Your task to perform on an android device: Open the calendar app, open the side menu, and click the "Day" option Image 0: 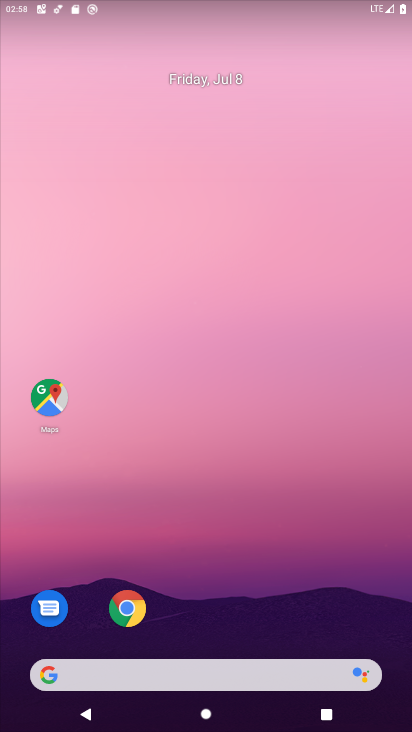
Step 0: drag from (259, 611) to (199, 303)
Your task to perform on an android device: Open the calendar app, open the side menu, and click the "Day" option Image 1: 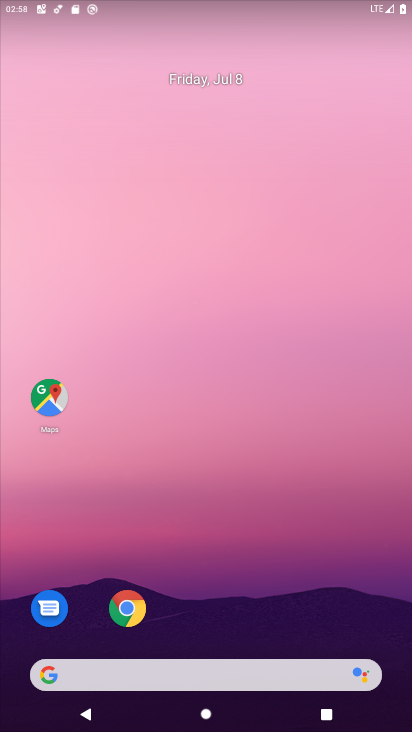
Step 1: drag from (211, 605) to (169, 270)
Your task to perform on an android device: Open the calendar app, open the side menu, and click the "Day" option Image 2: 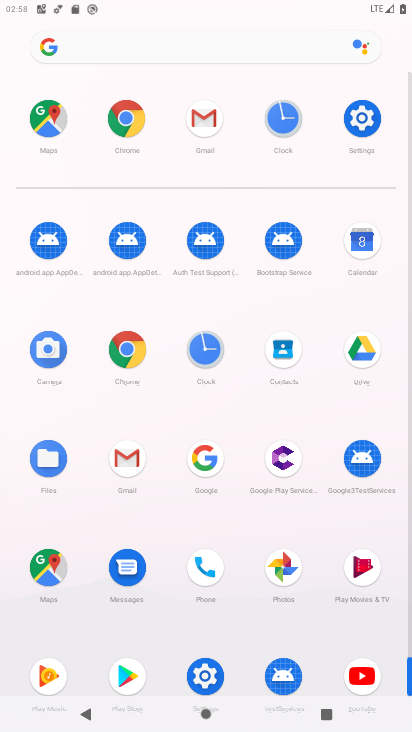
Step 2: click (357, 237)
Your task to perform on an android device: Open the calendar app, open the side menu, and click the "Day" option Image 3: 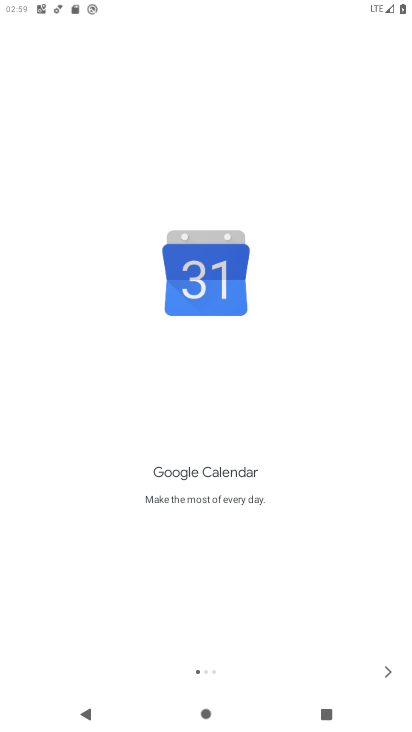
Step 3: click (388, 669)
Your task to perform on an android device: Open the calendar app, open the side menu, and click the "Day" option Image 4: 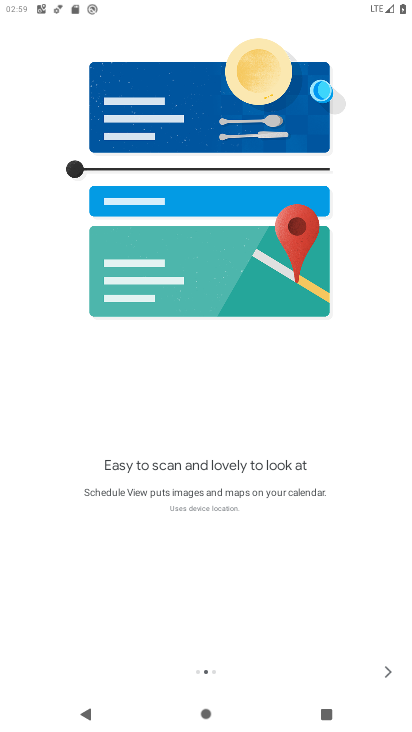
Step 4: click (388, 669)
Your task to perform on an android device: Open the calendar app, open the side menu, and click the "Day" option Image 5: 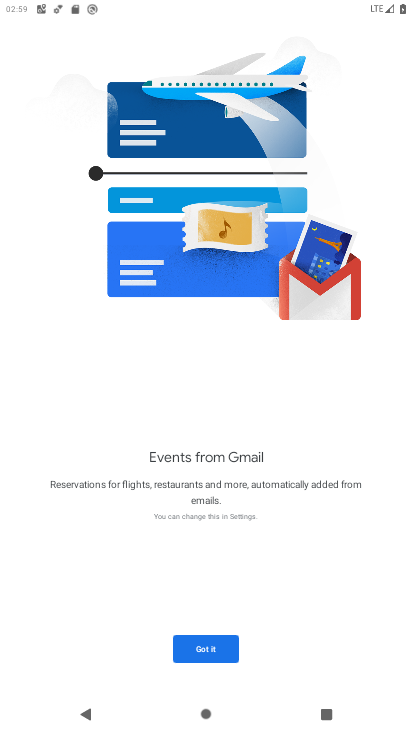
Step 5: click (216, 647)
Your task to perform on an android device: Open the calendar app, open the side menu, and click the "Day" option Image 6: 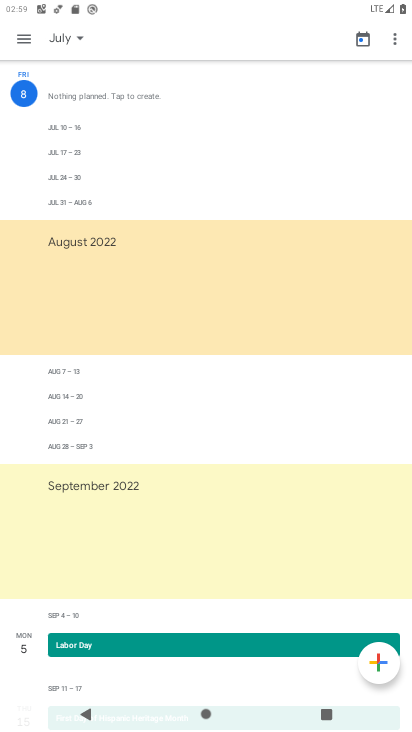
Step 6: click (20, 40)
Your task to perform on an android device: Open the calendar app, open the side menu, and click the "Day" option Image 7: 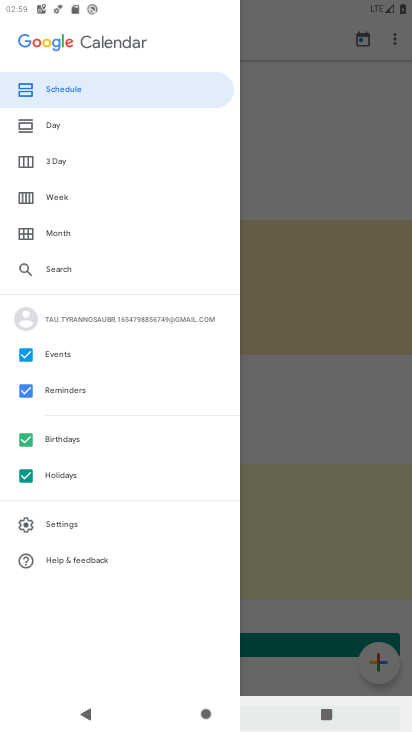
Step 7: click (57, 138)
Your task to perform on an android device: Open the calendar app, open the side menu, and click the "Day" option Image 8: 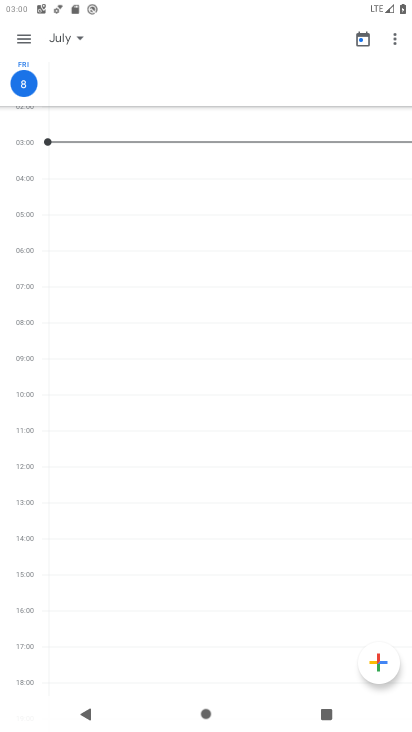
Step 8: task complete